Your task to perform on an android device: What's the weather going to be tomorrow? Image 0: 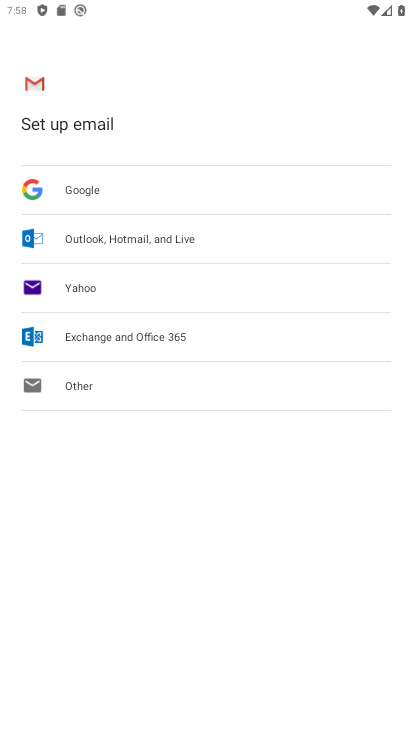
Step 0: press home button
Your task to perform on an android device: What's the weather going to be tomorrow? Image 1: 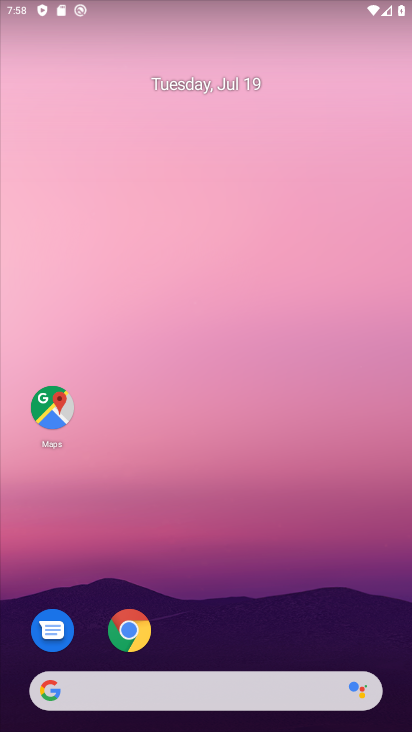
Step 1: drag from (234, 628) to (241, 251)
Your task to perform on an android device: What's the weather going to be tomorrow? Image 2: 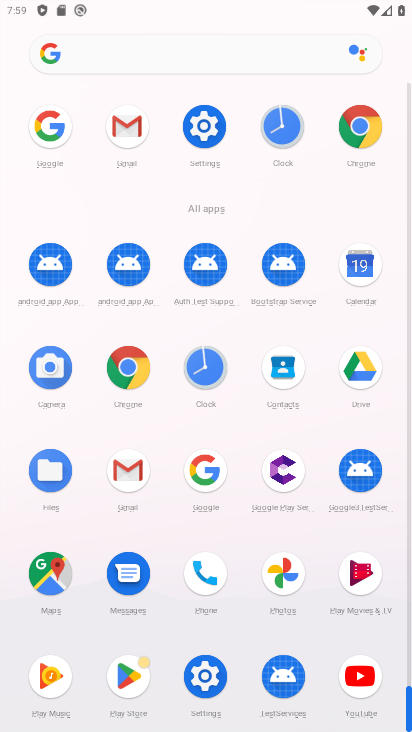
Step 2: click (203, 476)
Your task to perform on an android device: What's the weather going to be tomorrow? Image 3: 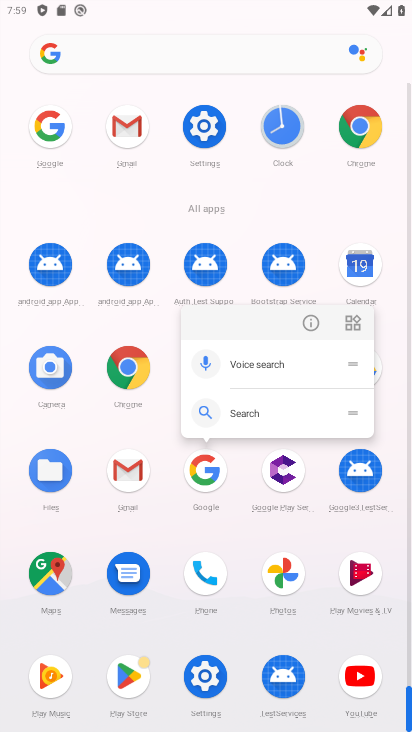
Step 3: click (210, 501)
Your task to perform on an android device: What's the weather going to be tomorrow? Image 4: 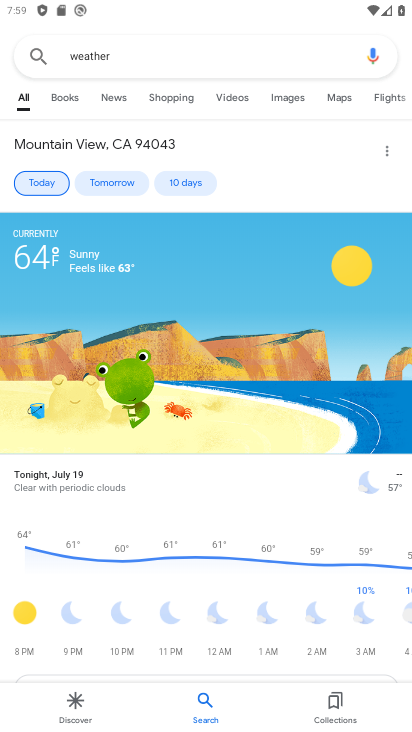
Step 4: click (119, 185)
Your task to perform on an android device: What's the weather going to be tomorrow? Image 5: 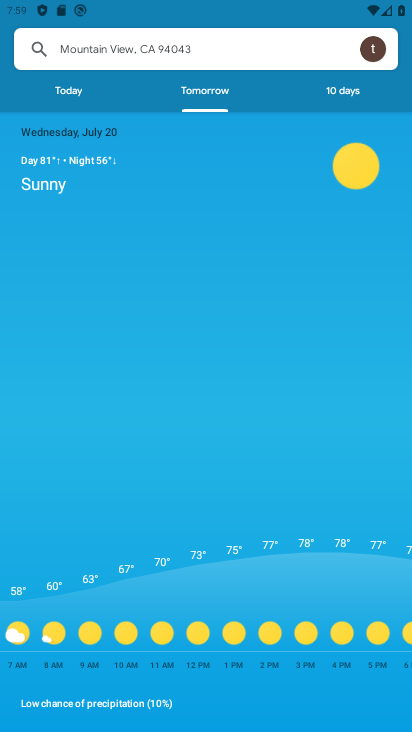
Step 5: task complete